Your task to perform on an android device: change the clock style Image 0: 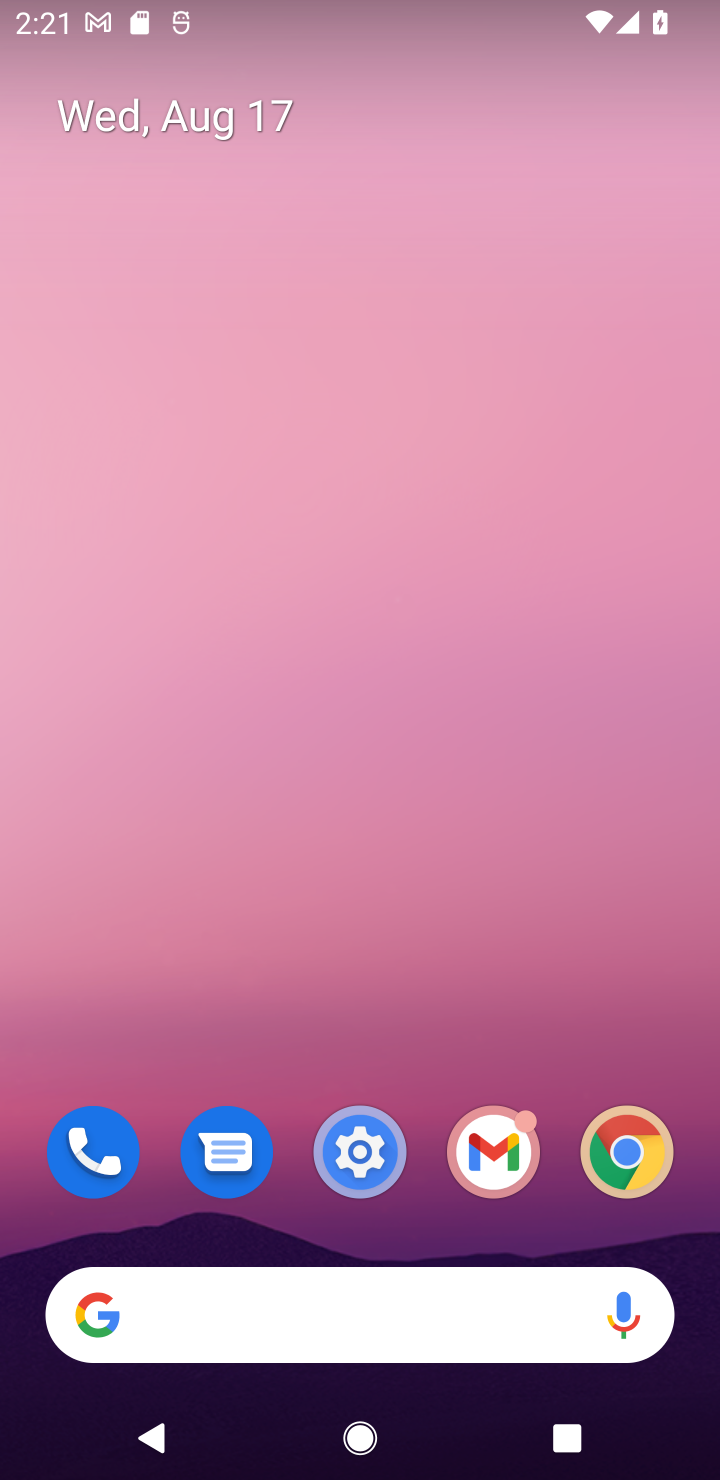
Step 0: drag from (593, 1222) to (418, 24)
Your task to perform on an android device: change the clock style Image 1: 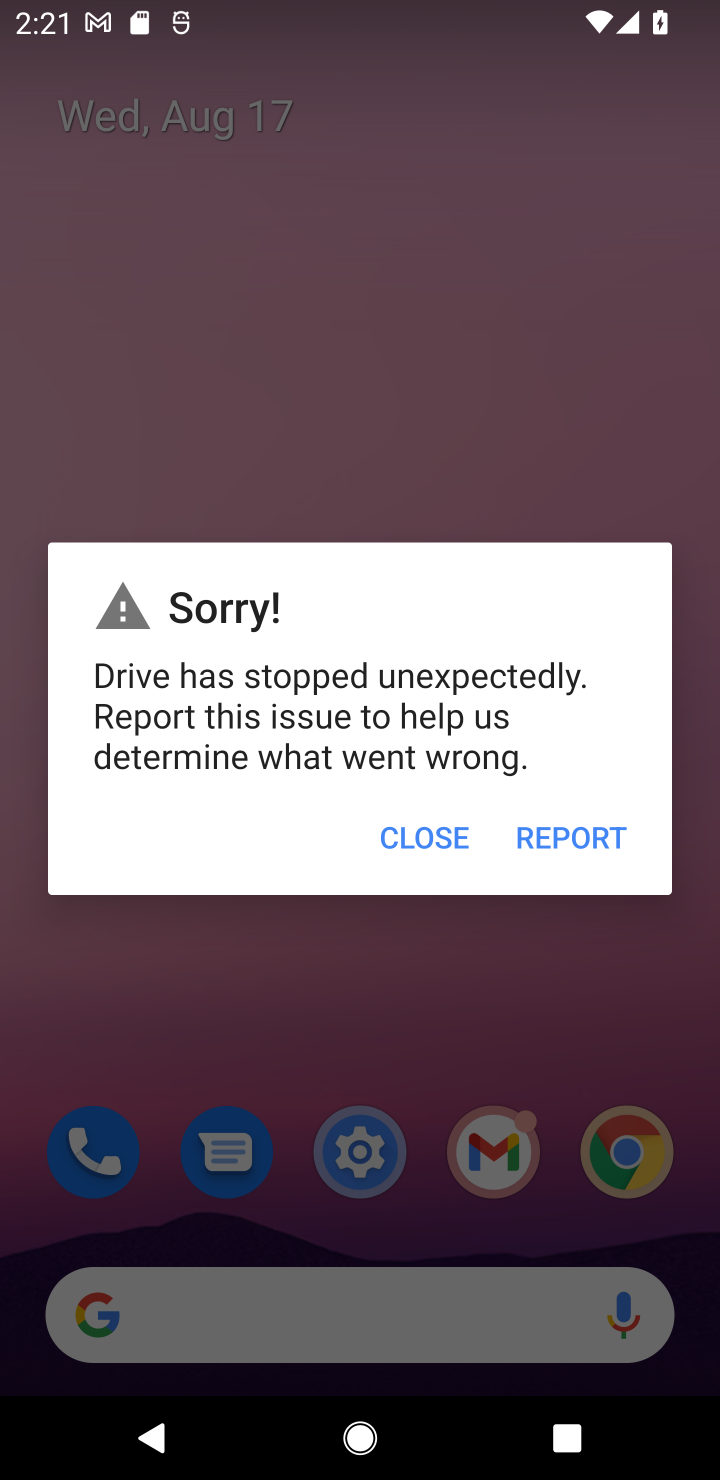
Step 1: click (459, 851)
Your task to perform on an android device: change the clock style Image 2: 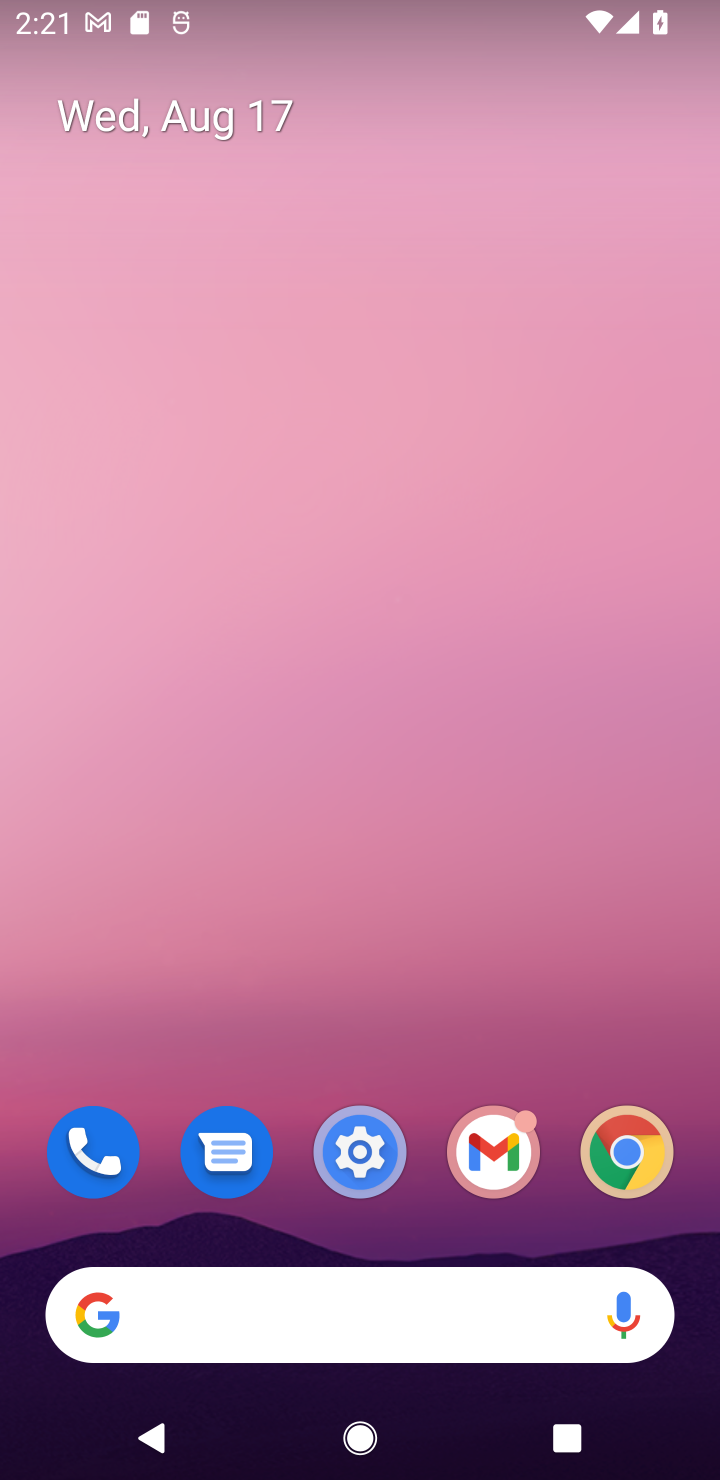
Step 2: drag from (561, 1206) to (260, 83)
Your task to perform on an android device: change the clock style Image 3: 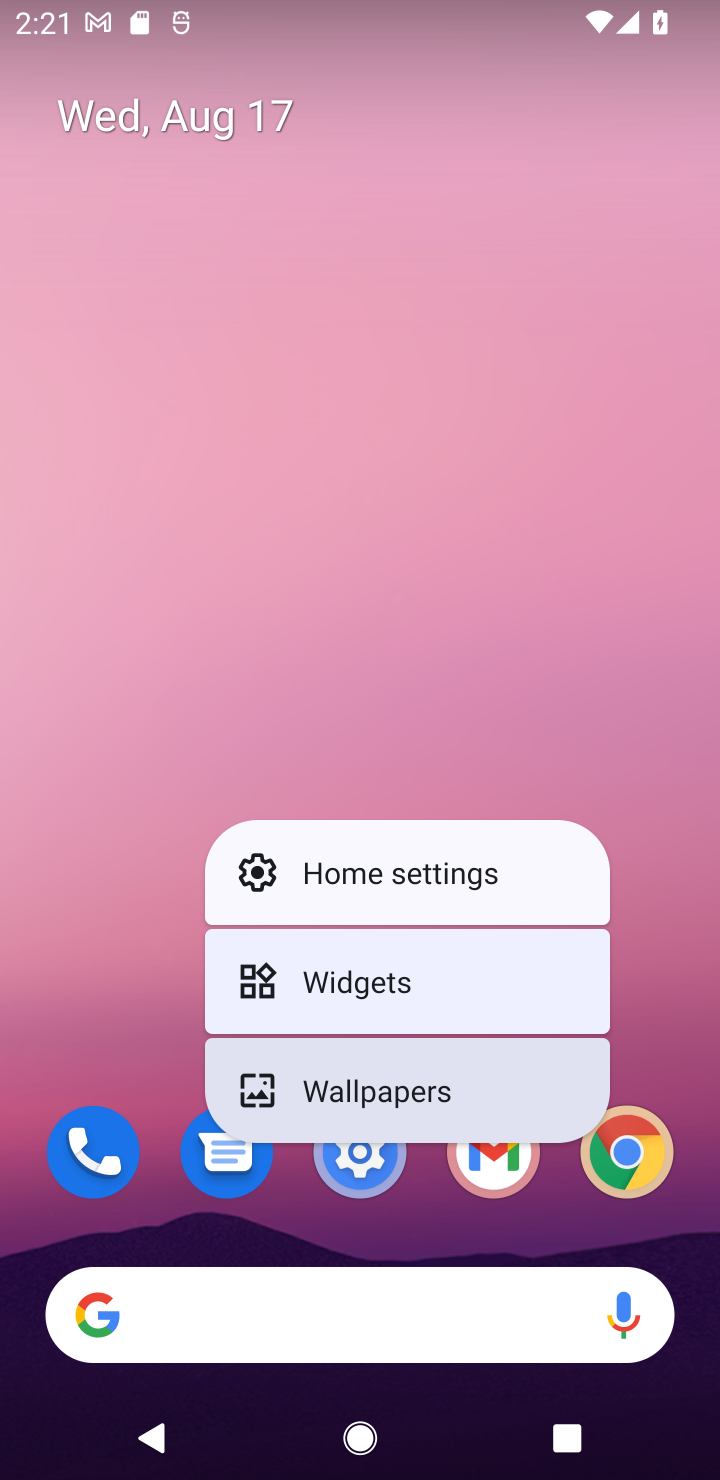
Step 3: click (608, 560)
Your task to perform on an android device: change the clock style Image 4: 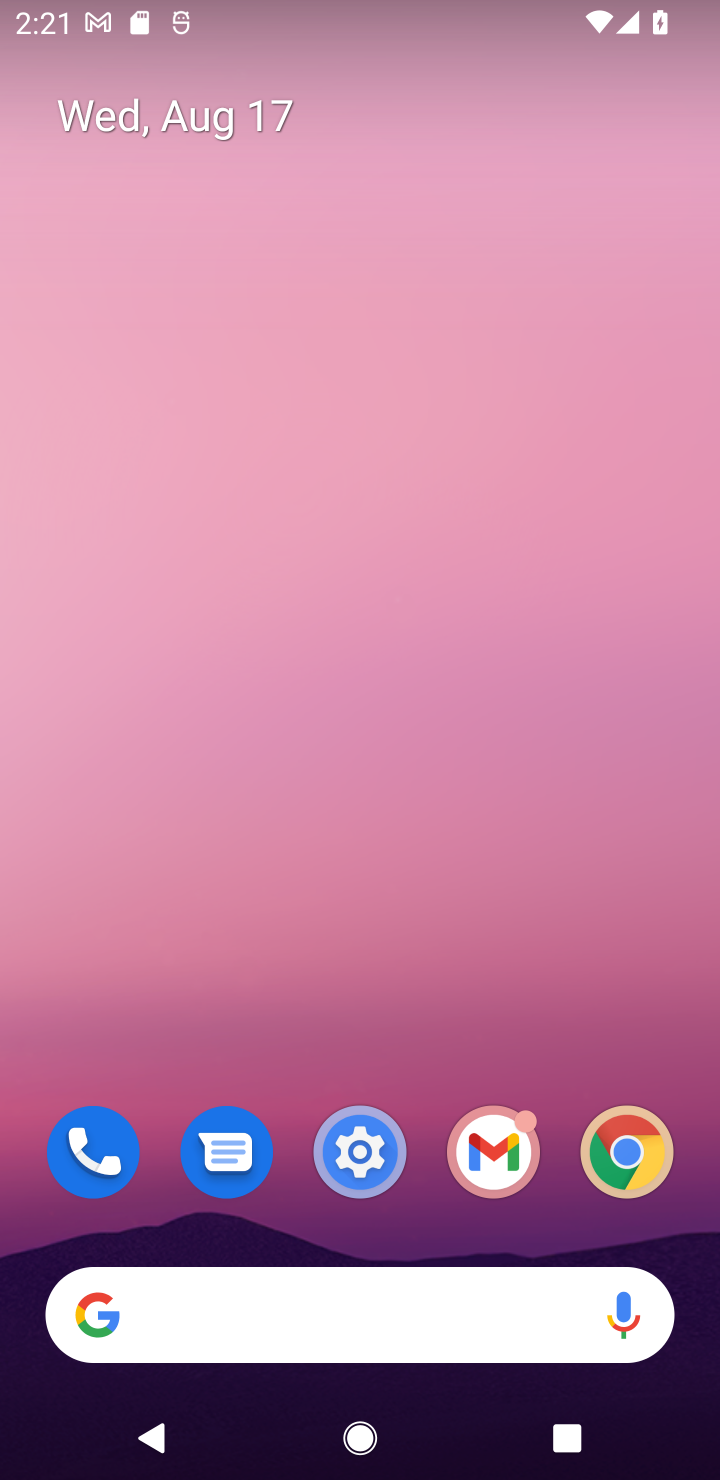
Step 4: drag from (573, 1222) to (307, 75)
Your task to perform on an android device: change the clock style Image 5: 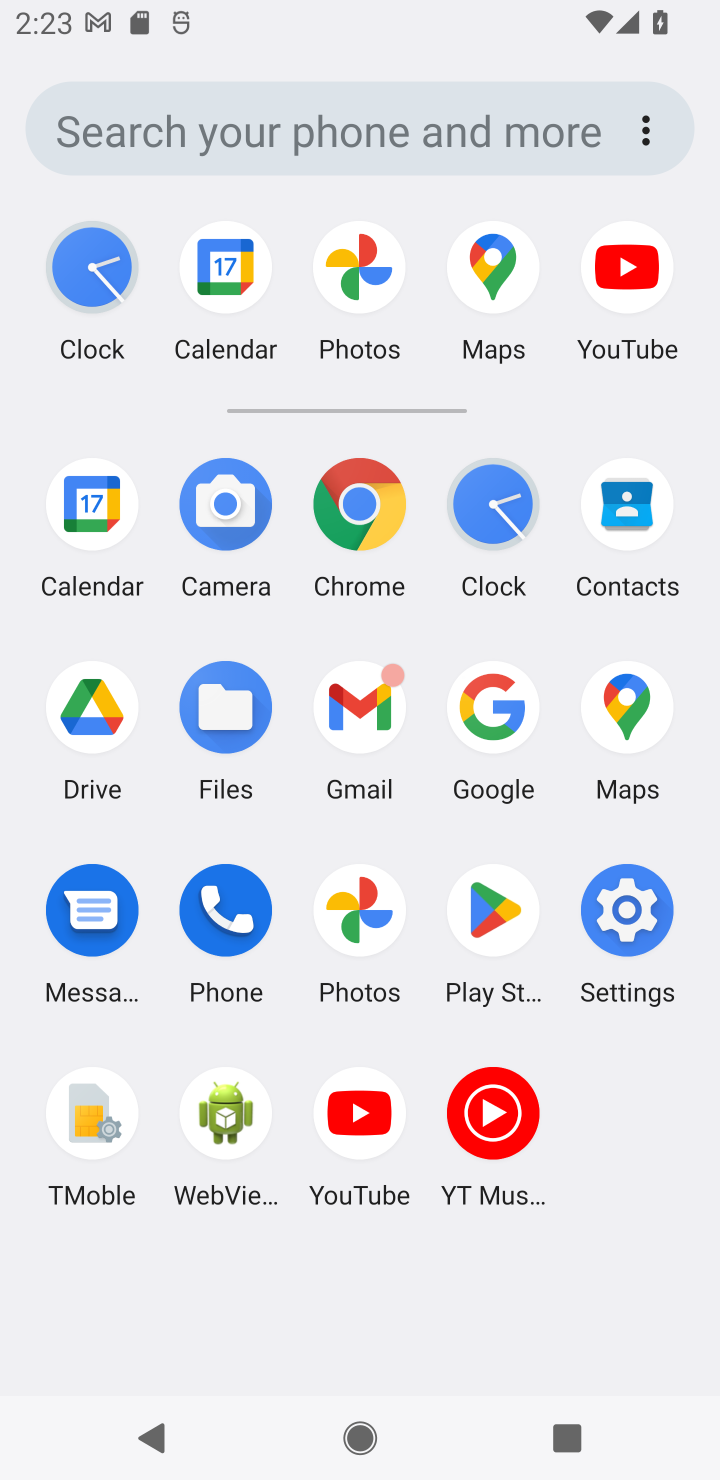
Step 5: click (500, 518)
Your task to perform on an android device: change the clock style Image 6: 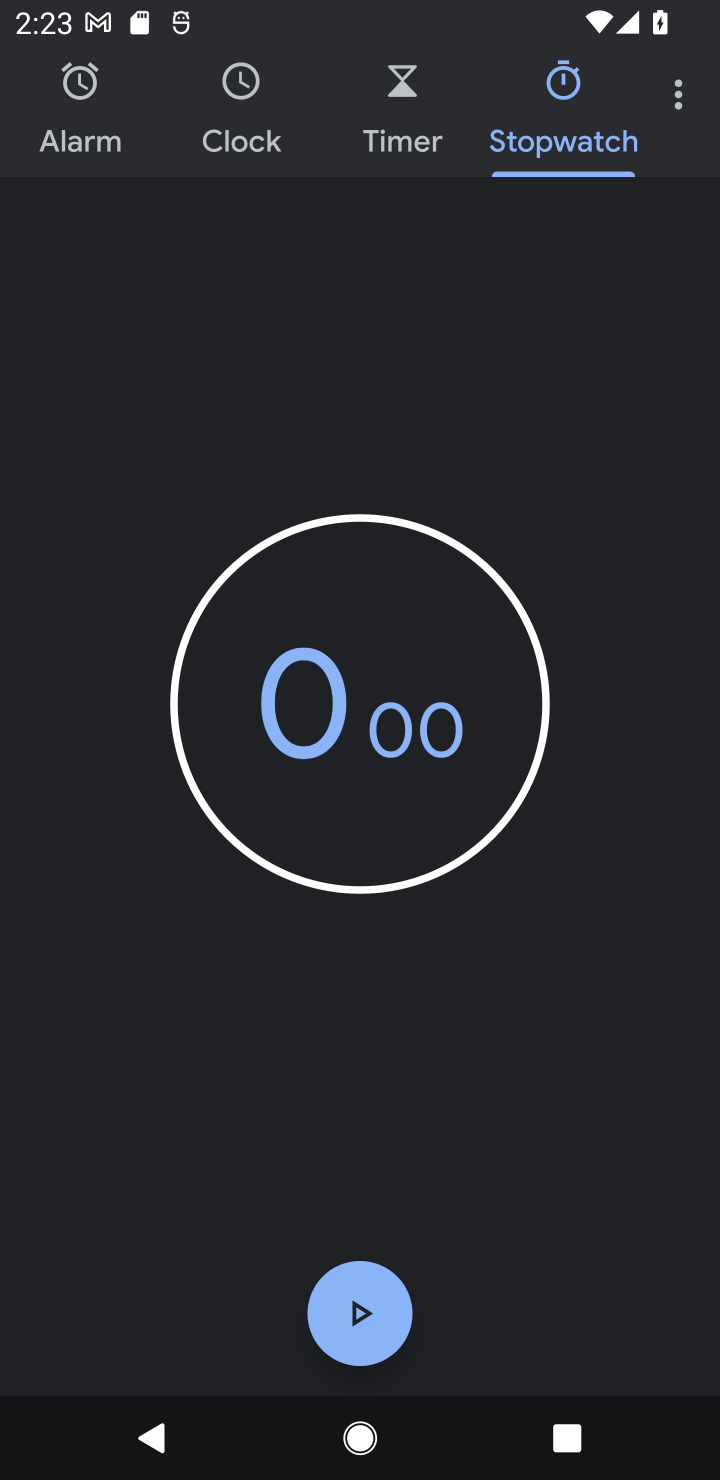
Step 6: click (684, 90)
Your task to perform on an android device: change the clock style Image 7: 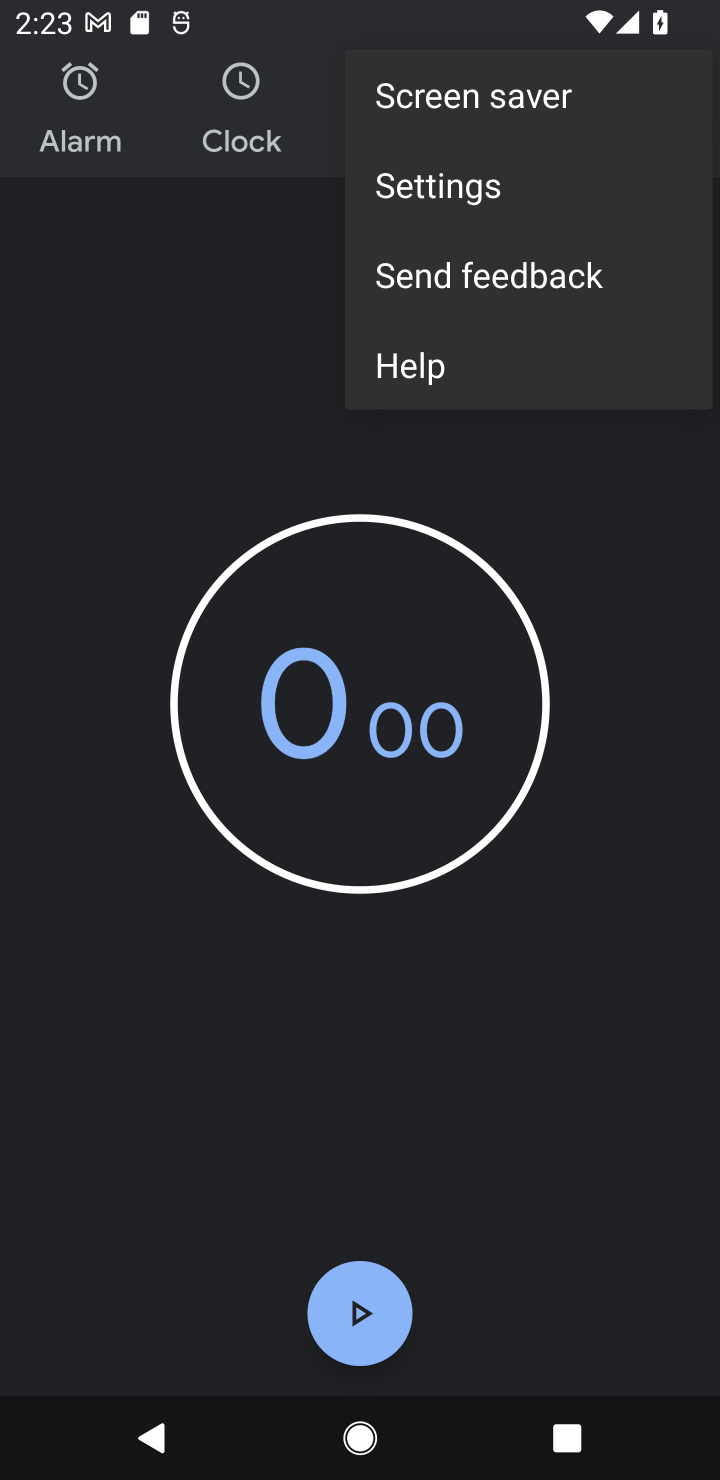
Step 7: click (431, 206)
Your task to perform on an android device: change the clock style Image 8: 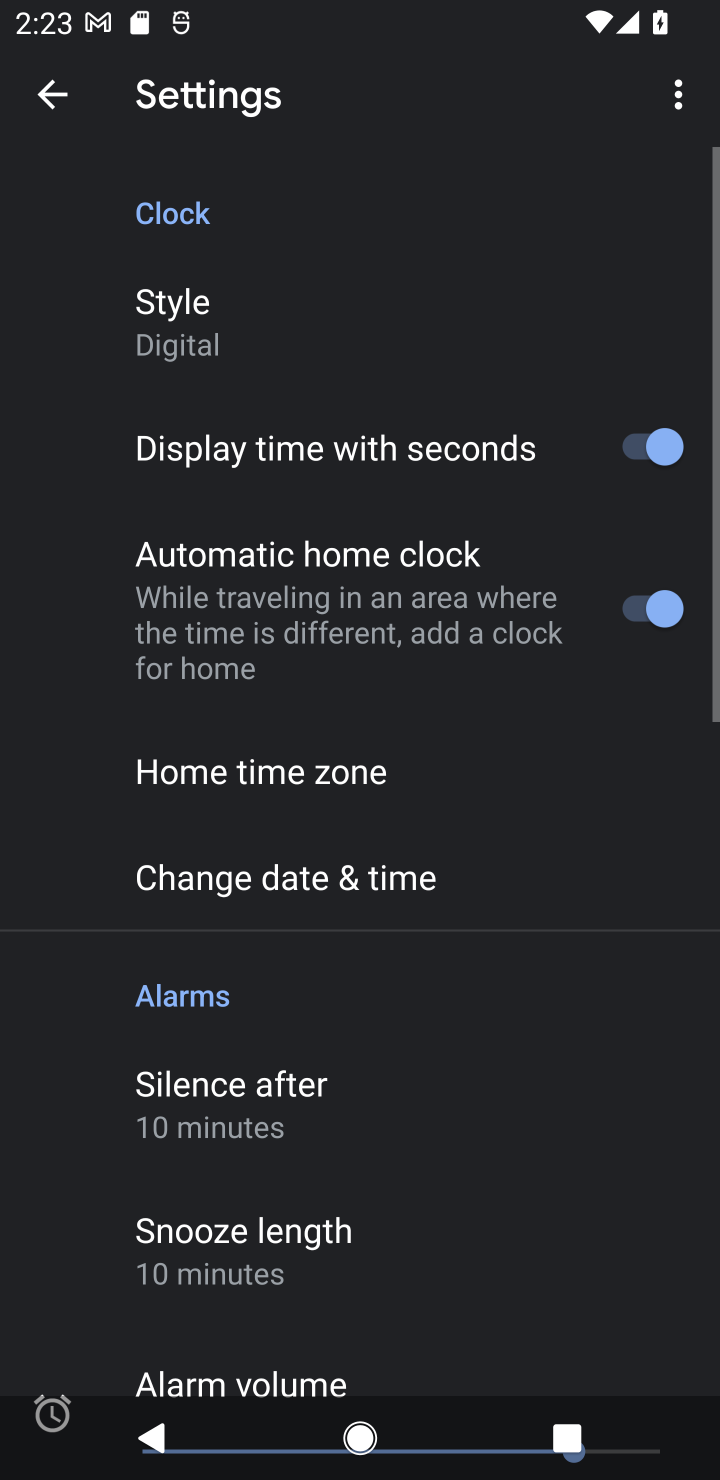
Step 8: click (224, 335)
Your task to perform on an android device: change the clock style Image 9: 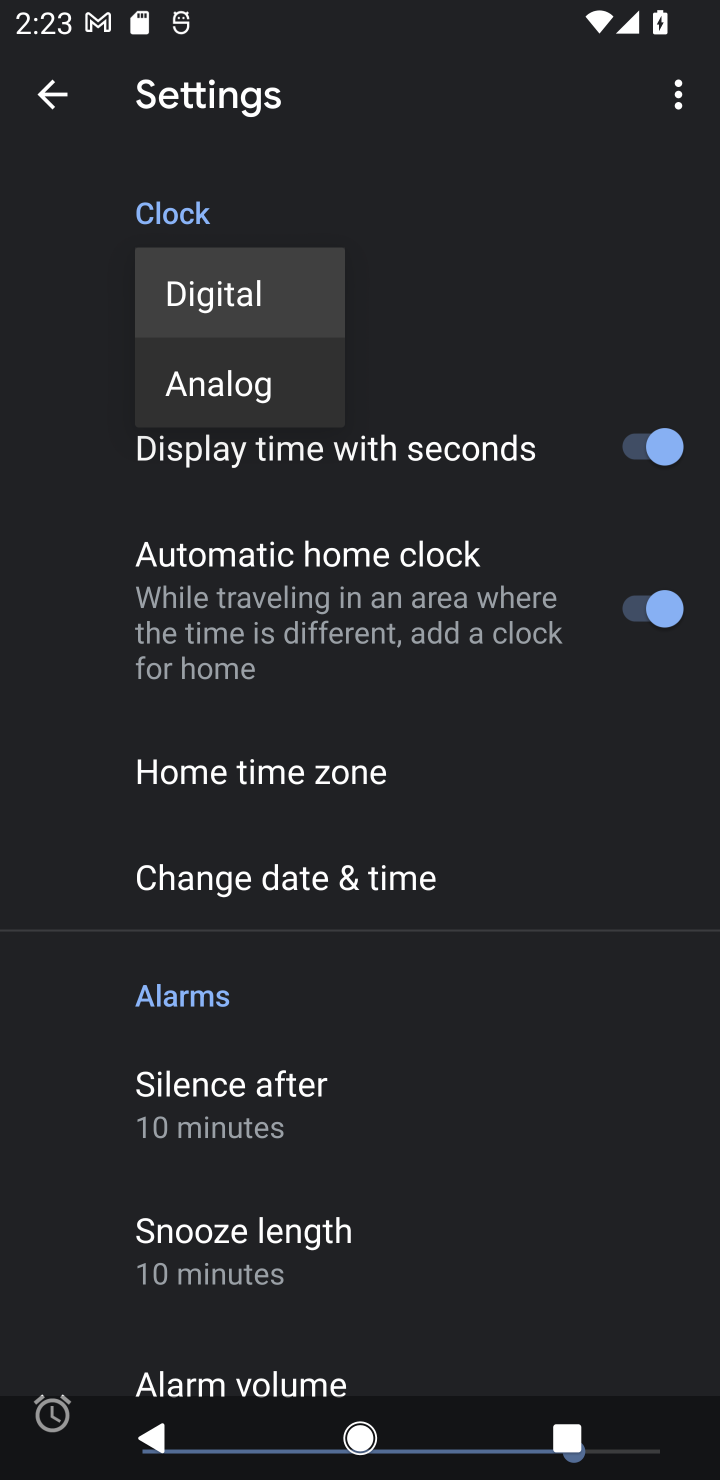
Step 9: click (249, 387)
Your task to perform on an android device: change the clock style Image 10: 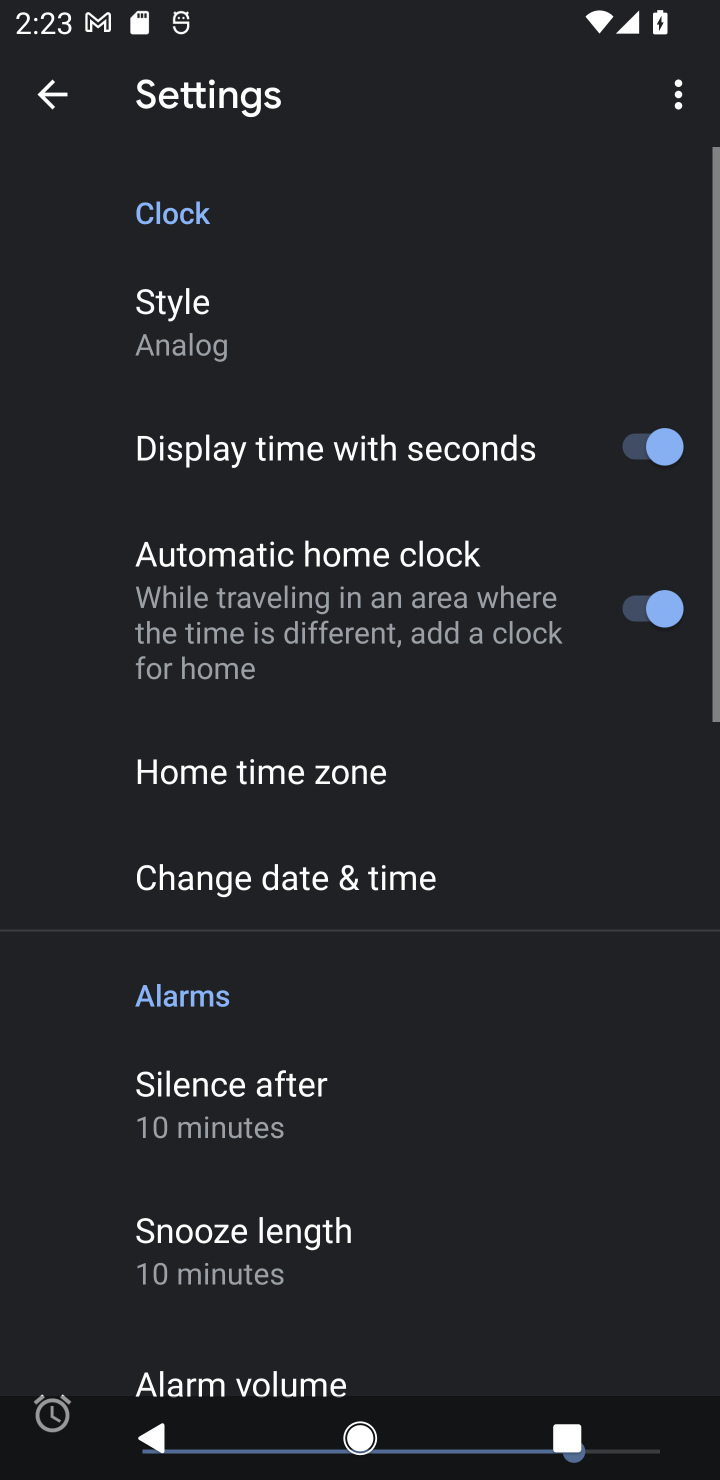
Step 10: task complete